Your task to perform on an android device: clear all cookies in the chrome app Image 0: 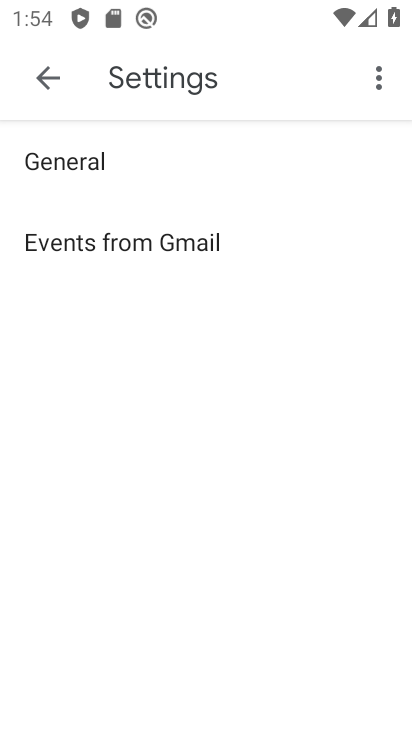
Step 0: press back button
Your task to perform on an android device: clear all cookies in the chrome app Image 1: 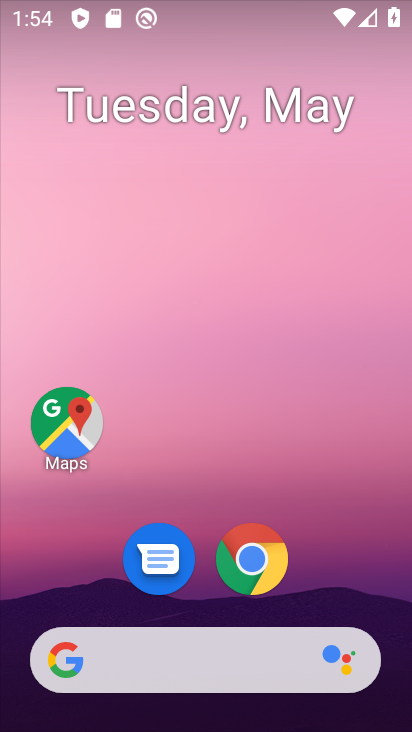
Step 1: click (253, 555)
Your task to perform on an android device: clear all cookies in the chrome app Image 2: 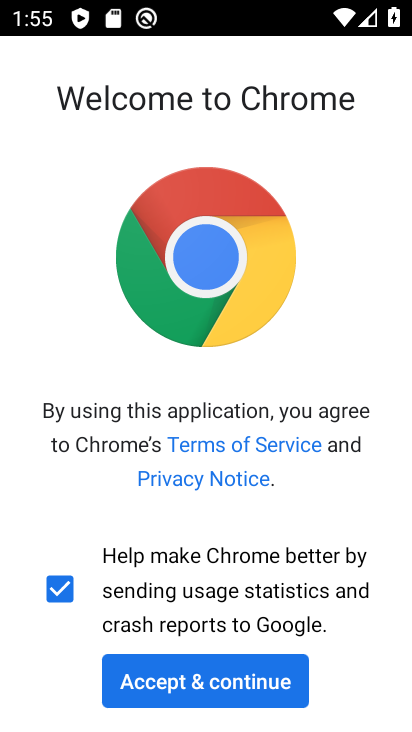
Step 2: click (157, 673)
Your task to perform on an android device: clear all cookies in the chrome app Image 3: 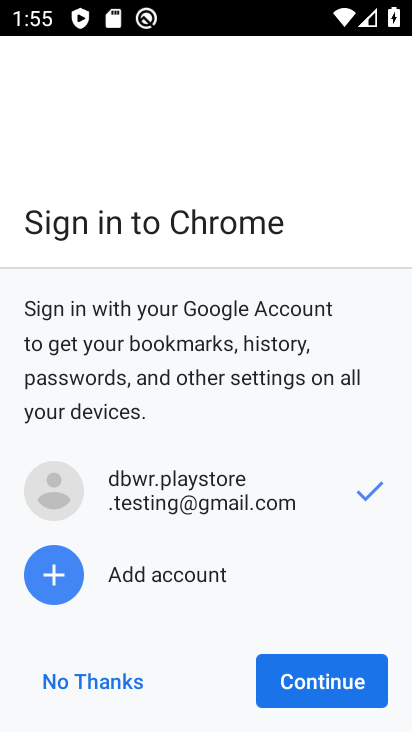
Step 3: click (339, 674)
Your task to perform on an android device: clear all cookies in the chrome app Image 4: 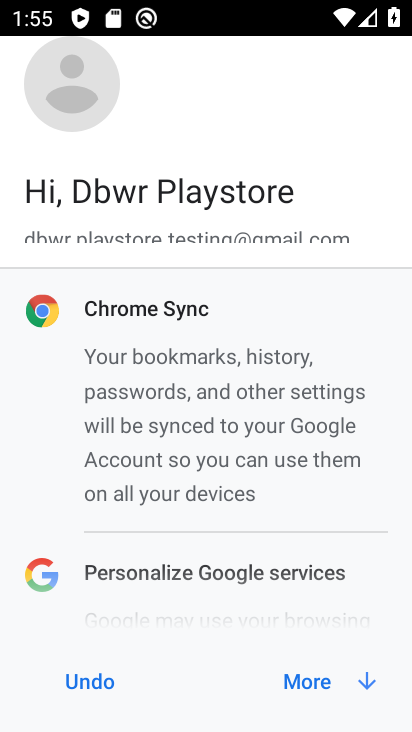
Step 4: click (339, 674)
Your task to perform on an android device: clear all cookies in the chrome app Image 5: 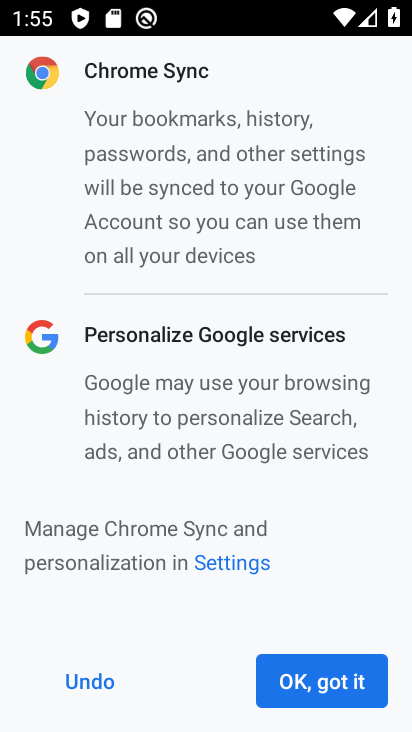
Step 5: click (339, 674)
Your task to perform on an android device: clear all cookies in the chrome app Image 6: 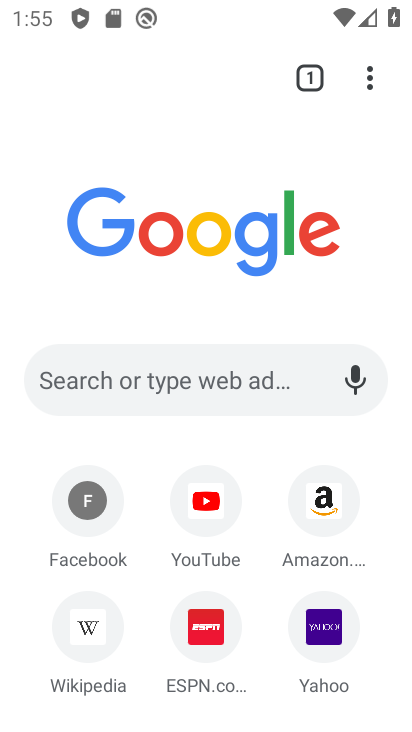
Step 6: click (370, 78)
Your task to perform on an android device: clear all cookies in the chrome app Image 7: 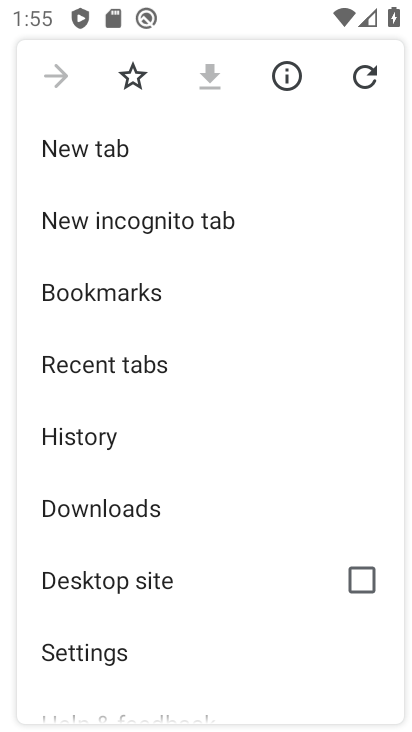
Step 7: click (90, 650)
Your task to perform on an android device: clear all cookies in the chrome app Image 8: 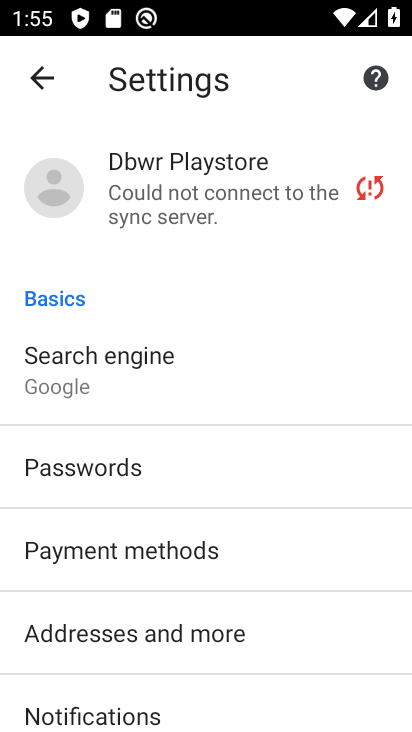
Step 8: drag from (139, 572) to (237, 461)
Your task to perform on an android device: clear all cookies in the chrome app Image 9: 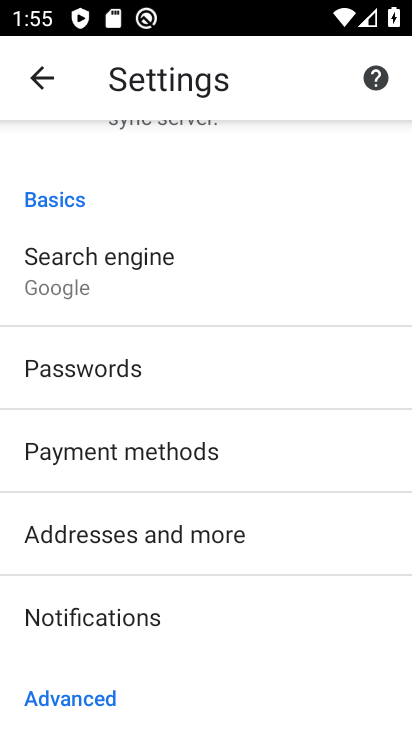
Step 9: drag from (147, 637) to (258, 493)
Your task to perform on an android device: clear all cookies in the chrome app Image 10: 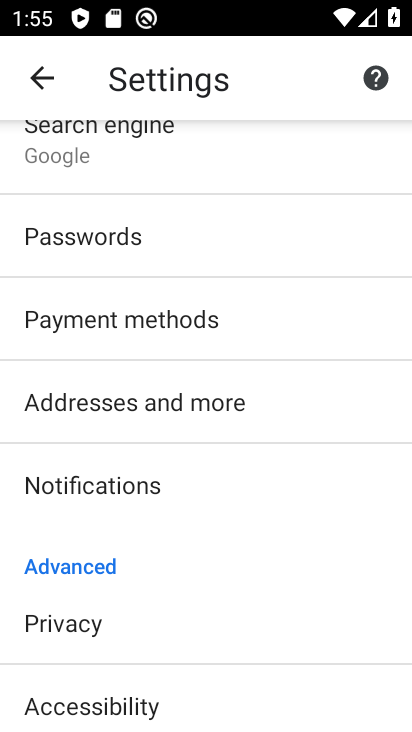
Step 10: click (61, 624)
Your task to perform on an android device: clear all cookies in the chrome app Image 11: 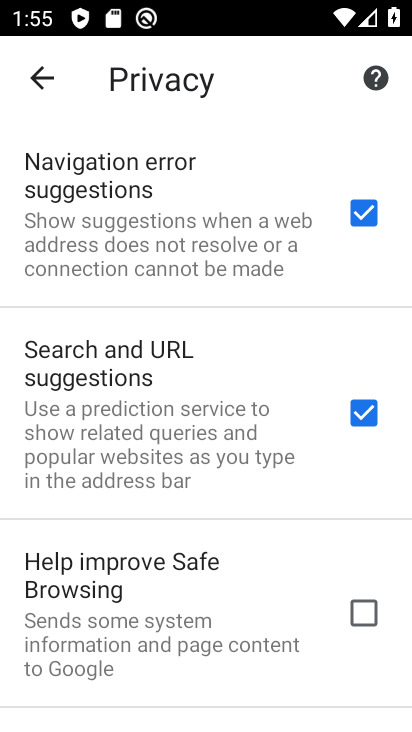
Step 11: drag from (173, 553) to (190, 452)
Your task to perform on an android device: clear all cookies in the chrome app Image 12: 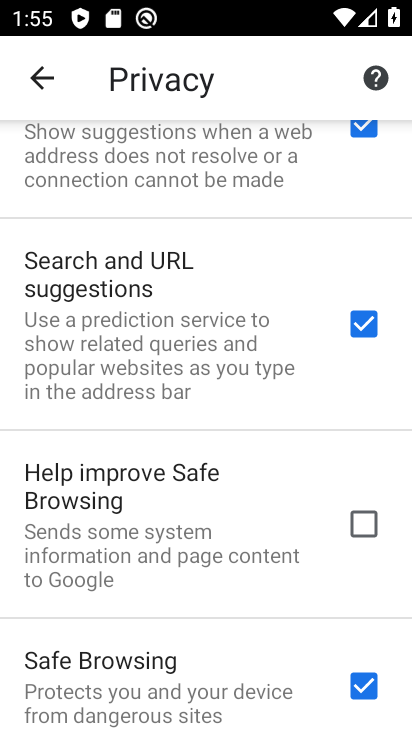
Step 12: drag from (189, 645) to (215, 363)
Your task to perform on an android device: clear all cookies in the chrome app Image 13: 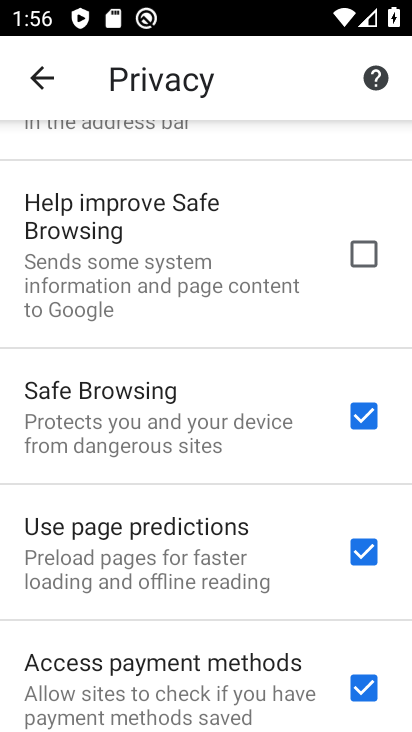
Step 13: drag from (147, 633) to (206, 394)
Your task to perform on an android device: clear all cookies in the chrome app Image 14: 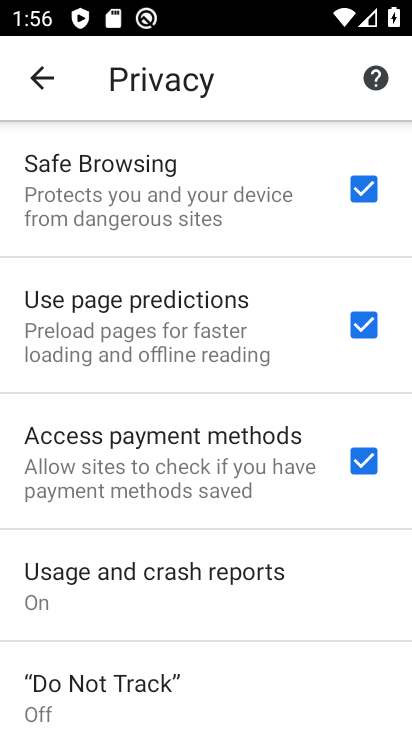
Step 14: drag from (199, 674) to (260, 432)
Your task to perform on an android device: clear all cookies in the chrome app Image 15: 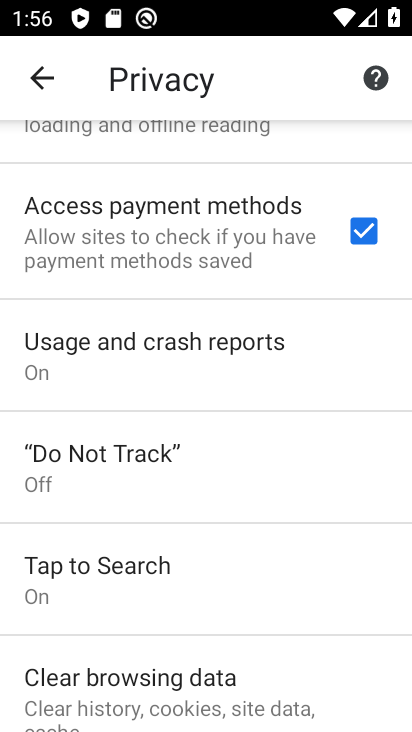
Step 15: click (186, 673)
Your task to perform on an android device: clear all cookies in the chrome app Image 16: 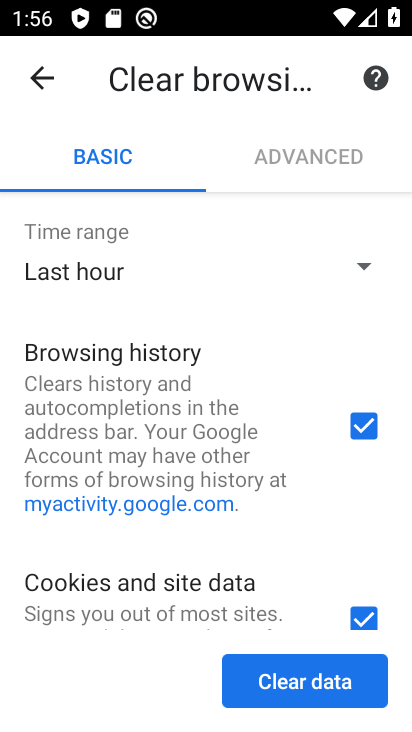
Step 16: click (360, 423)
Your task to perform on an android device: clear all cookies in the chrome app Image 17: 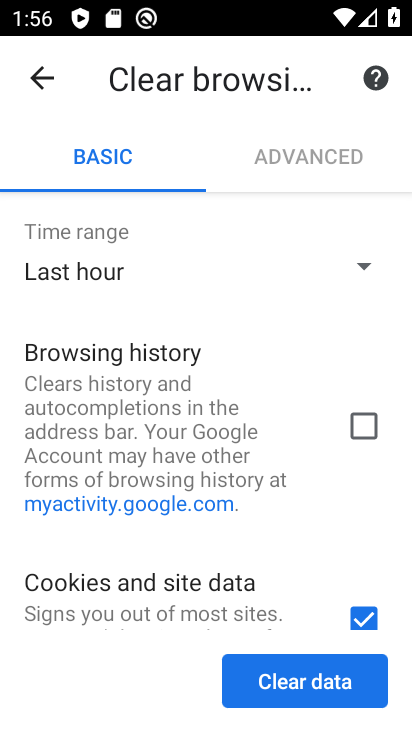
Step 17: click (367, 261)
Your task to perform on an android device: clear all cookies in the chrome app Image 18: 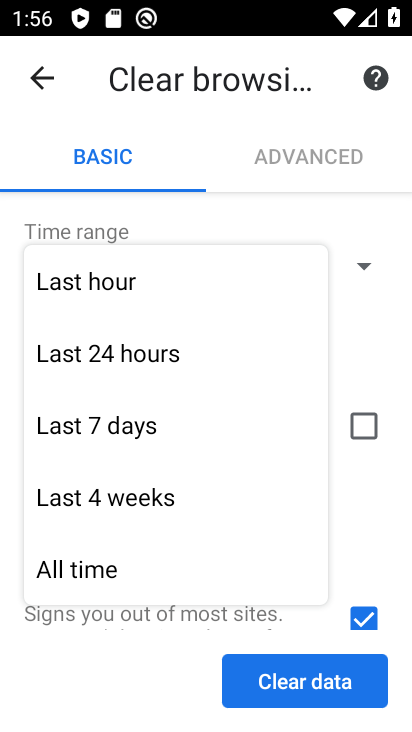
Step 18: click (105, 567)
Your task to perform on an android device: clear all cookies in the chrome app Image 19: 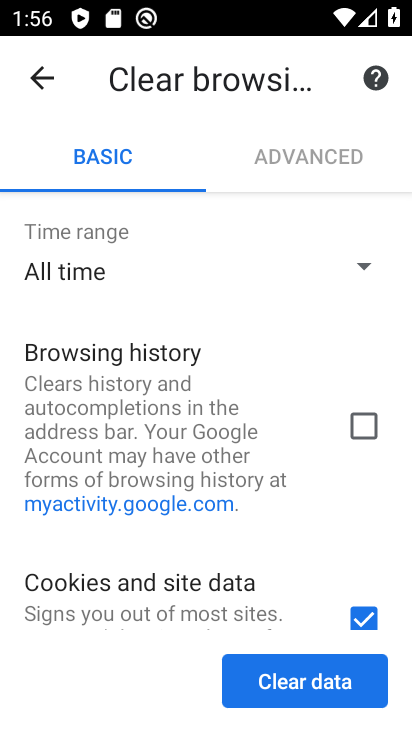
Step 19: click (298, 675)
Your task to perform on an android device: clear all cookies in the chrome app Image 20: 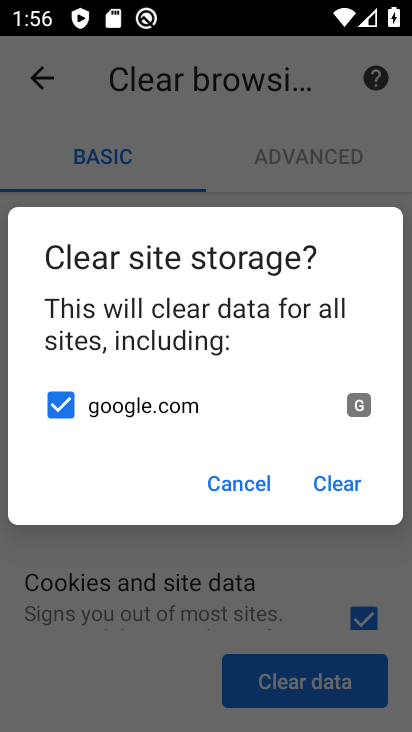
Step 20: click (353, 488)
Your task to perform on an android device: clear all cookies in the chrome app Image 21: 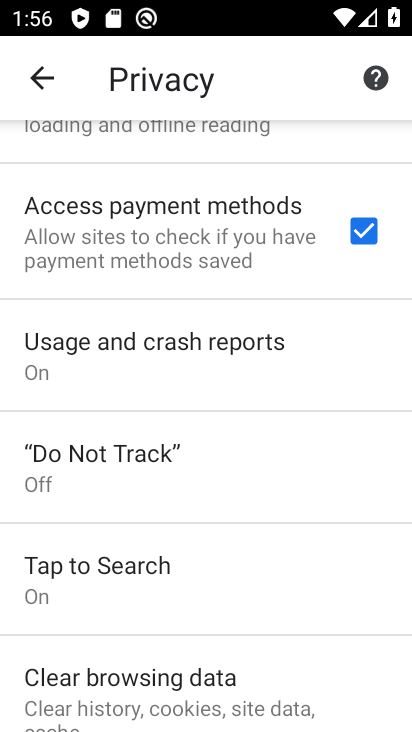
Step 21: task complete